Your task to perform on an android device: show emergency info Image 0: 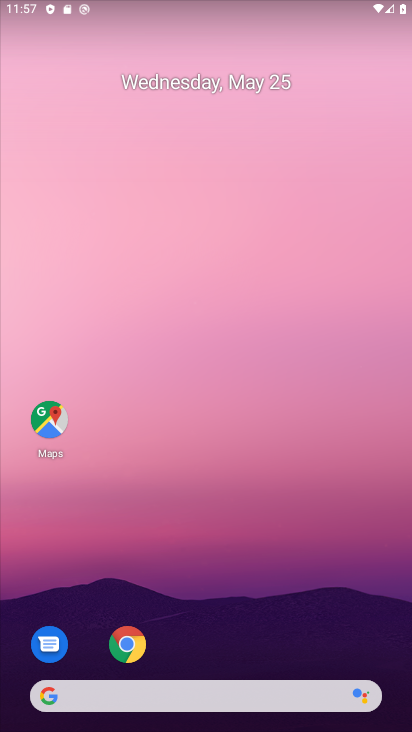
Step 0: drag from (238, 505) to (258, 119)
Your task to perform on an android device: show emergency info Image 1: 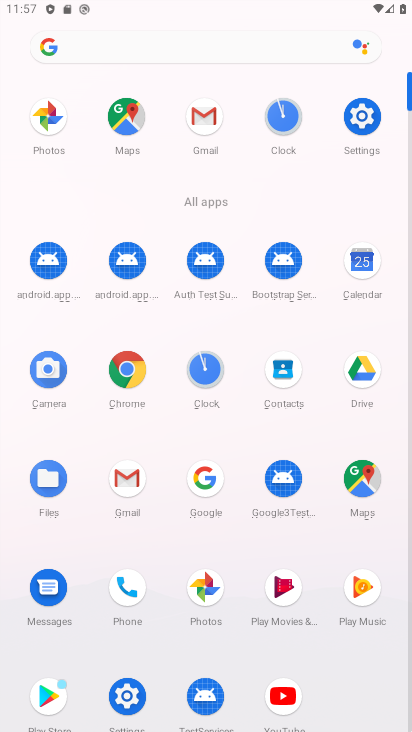
Step 1: click (362, 114)
Your task to perform on an android device: show emergency info Image 2: 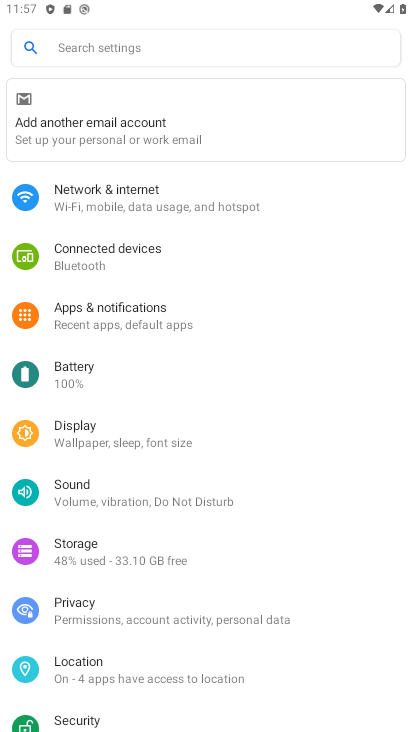
Step 2: drag from (131, 581) to (203, 488)
Your task to perform on an android device: show emergency info Image 3: 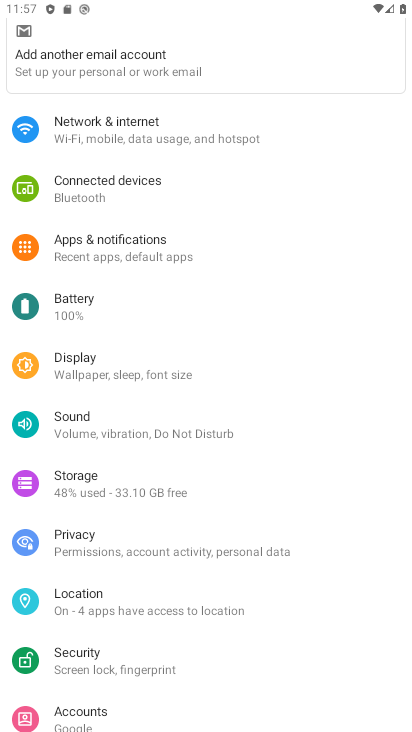
Step 3: drag from (145, 579) to (217, 495)
Your task to perform on an android device: show emergency info Image 4: 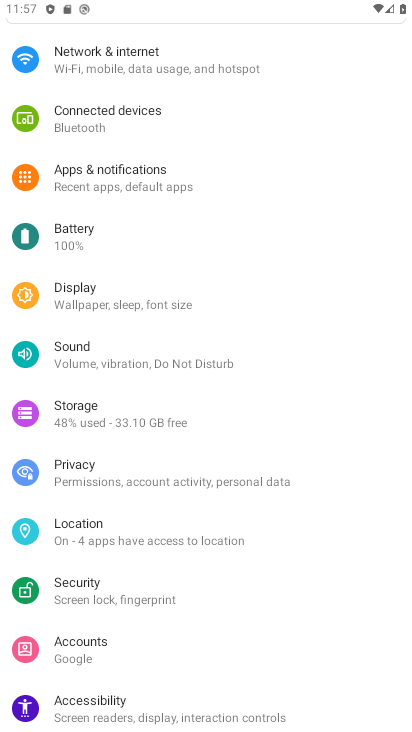
Step 4: drag from (133, 620) to (220, 498)
Your task to perform on an android device: show emergency info Image 5: 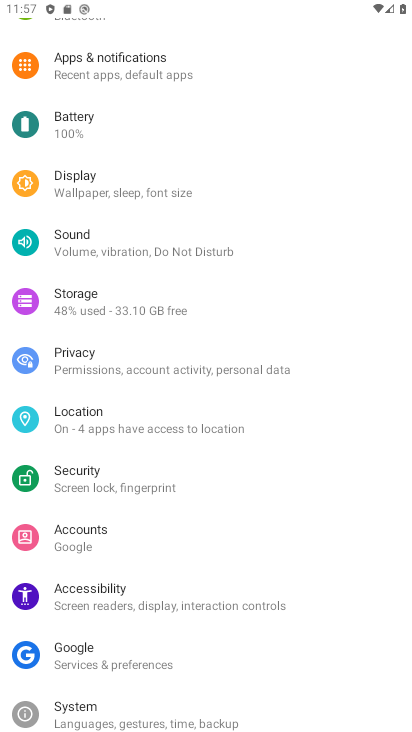
Step 5: drag from (122, 630) to (219, 521)
Your task to perform on an android device: show emergency info Image 6: 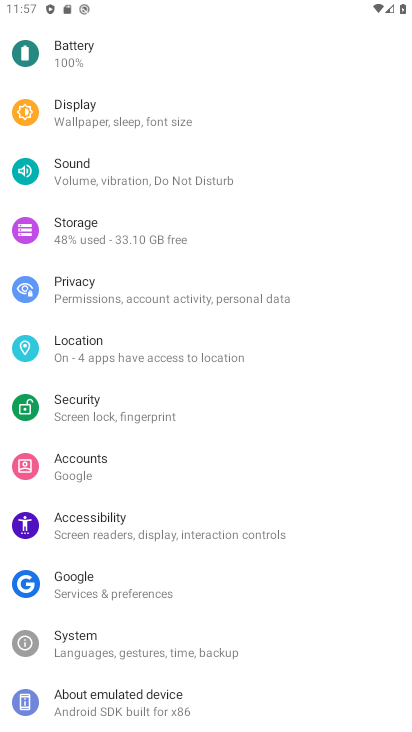
Step 6: drag from (135, 600) to (234, 485)
Your task to perform on an android device: show emergency info Image 7: 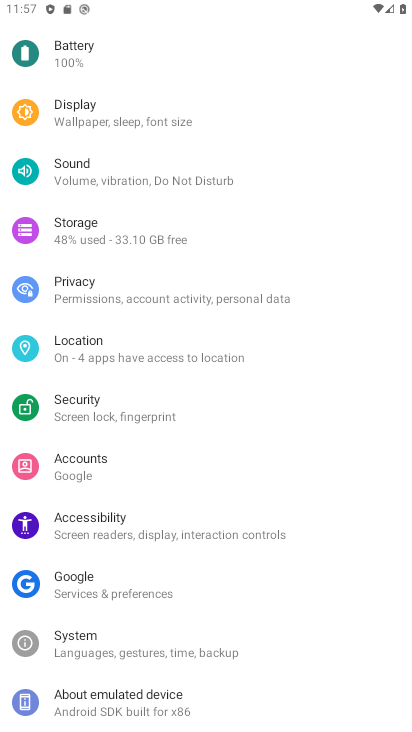
Step 7: click (117, 701)
Your task to perform on an android device: show emergency info Image 8: 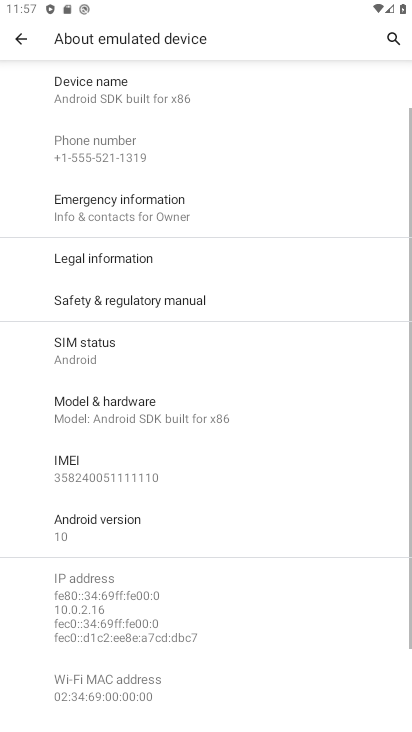
Step 8: click (166, 222)
Your task to perform on an android device: show emergency info Image 9: 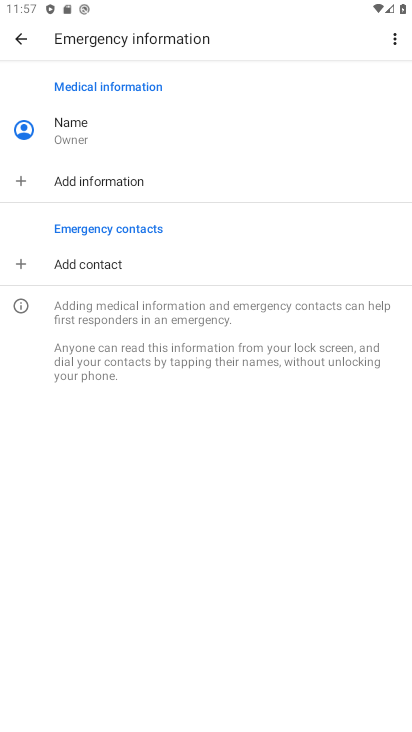
Step 9: task complete